Your task to perform on an android device: turn off smart reply in the gmail app Image 0: 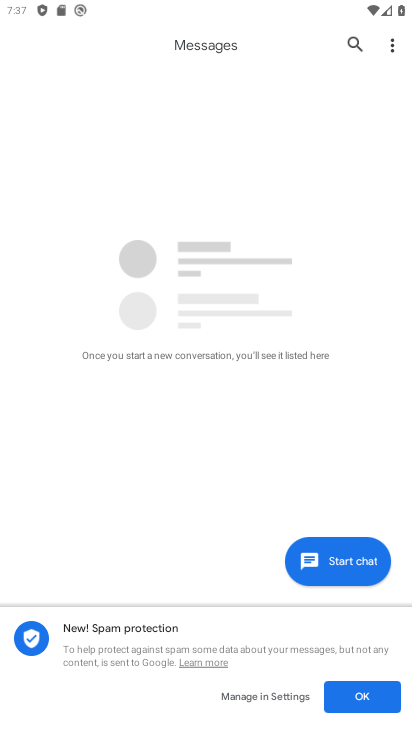
Step 0: drag from (166, 564) to (258, 0)
Your task to perform on an android device: turn off smart reply in the gmail app Image 1: 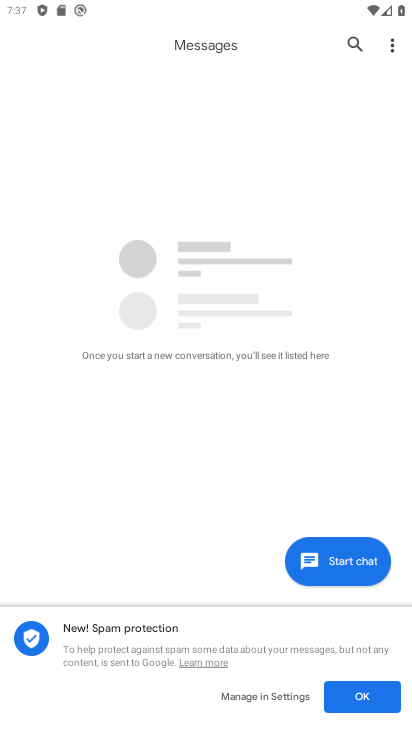
Step 1: drag from (199, 465) to (339, 24)
Your task to perform on an android device: turn off smart reply in the gmail app Image 2: 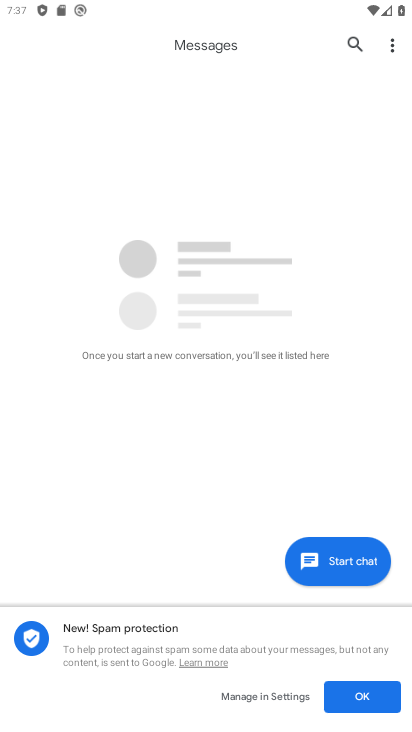
Step 2: press home button
Your task to perform on an android device: turn off smart reply in the gmail app Image 3: 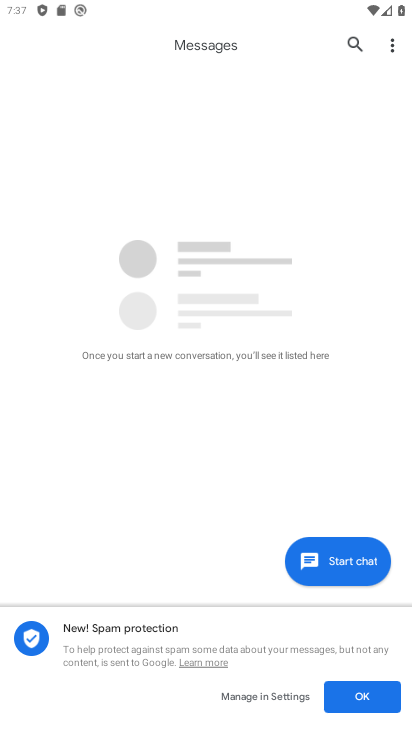
Step 3: drag from (339, 24) to (229, 59)
Your task to perform on an android device: turn off smart reply in the gmail app Image 4: 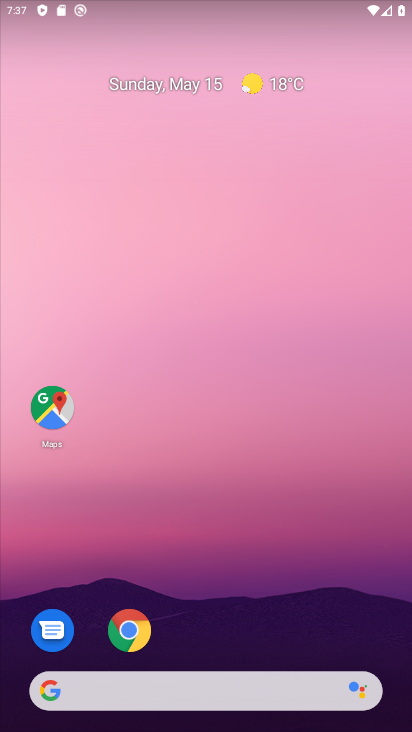
Step 4: drag from (228, 585) to (248, 5)
Your task to perform on an android device: turn off smart reply in the gmail app Image 5: 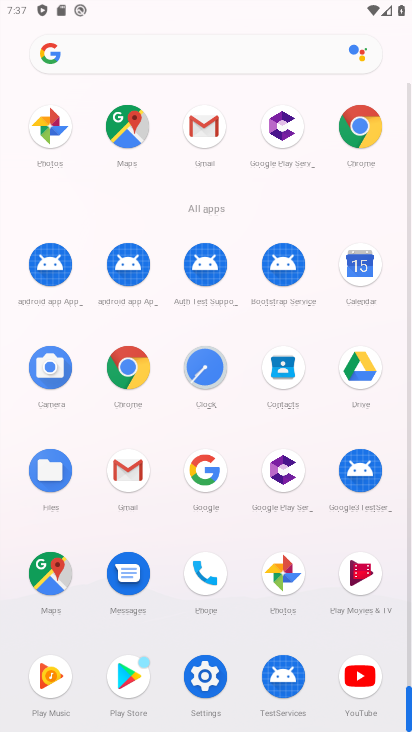
Step 5: click (132, 494)
Your task to perform on an android device: turn off smart reply in the gmail app Image 6: 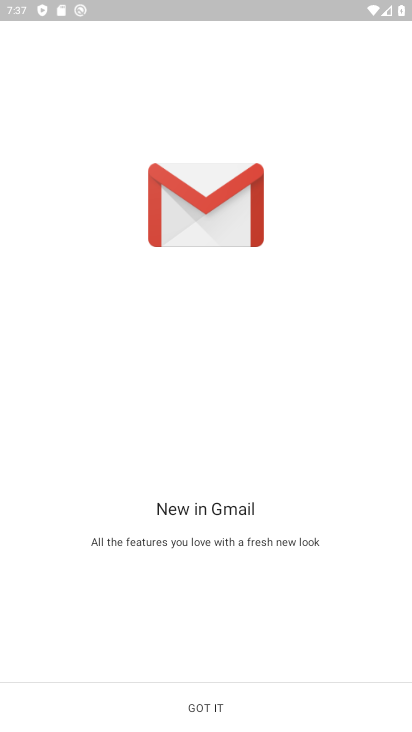
Step 6: click (174, 707)
Your task to perform on an android device: turn off smart reply in the gmail app Image 7: 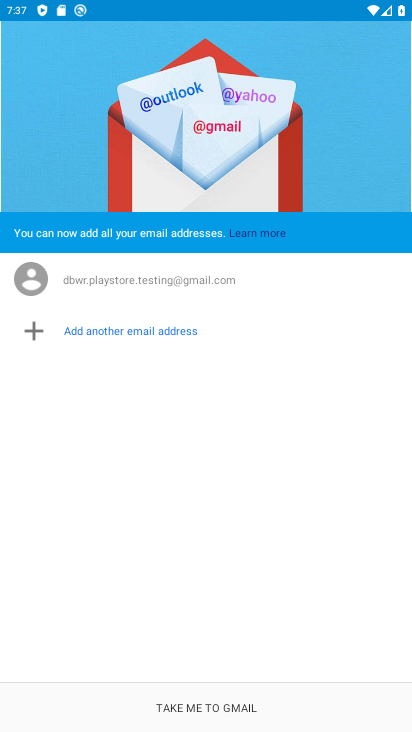
Step 7: click (182, 689)
Your task to perform on an android device: turn off smart reply in the gmail app Image 8: 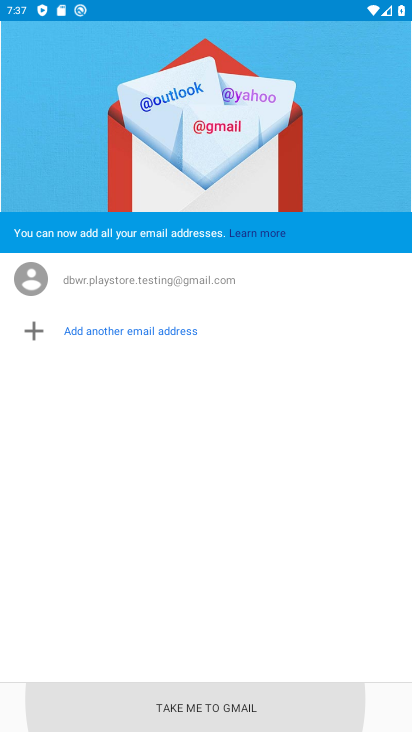
Step 8: click (182, 689)
Your task to perform on an android device: turn off smart reply in the gmail app Image 9: 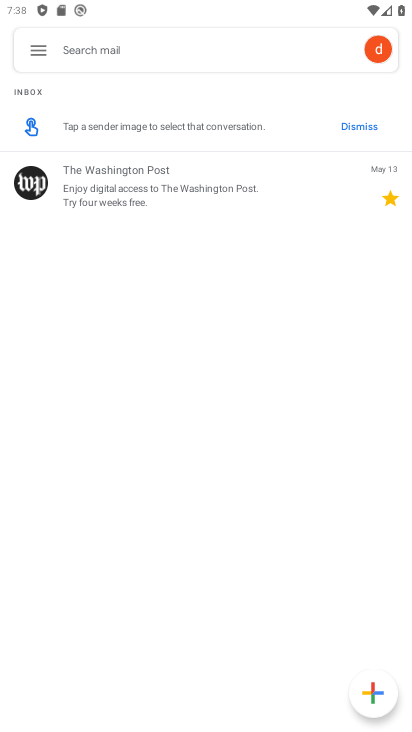
Step 9: drag from (243, 500) to (236, 154)
Your task to perform on an android device: turn off smart reply in the gmail app Image 10: 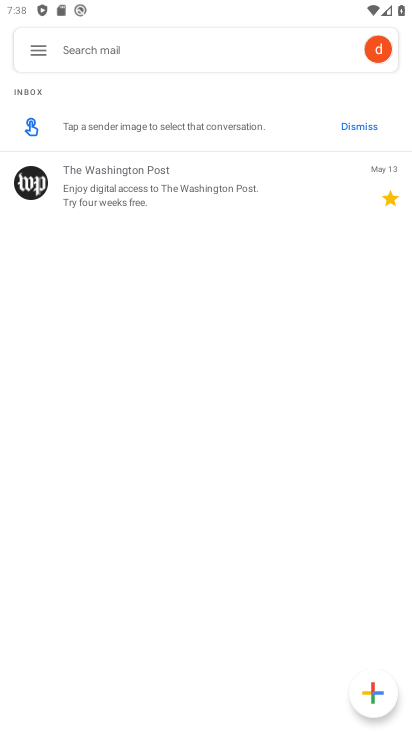
Step 10: click (45, 53)
Your task to perform on an android device: turn off smart reply in the gmail app Image 11: 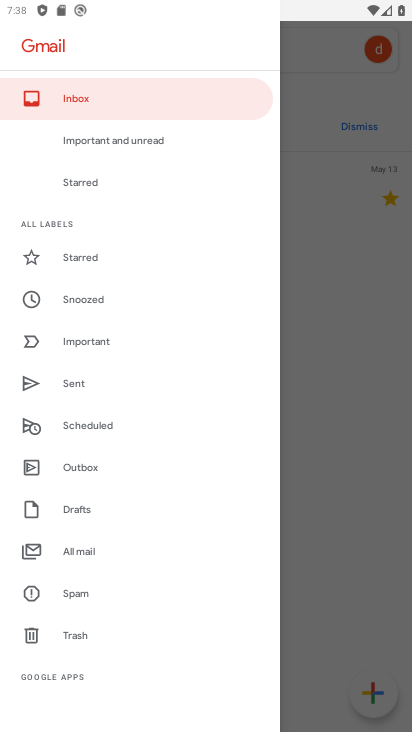
Step 11: drag from (158, 579) to (210, 89)
Your task to perform on an android device: turn off smart reply in the gmail app Image 12: 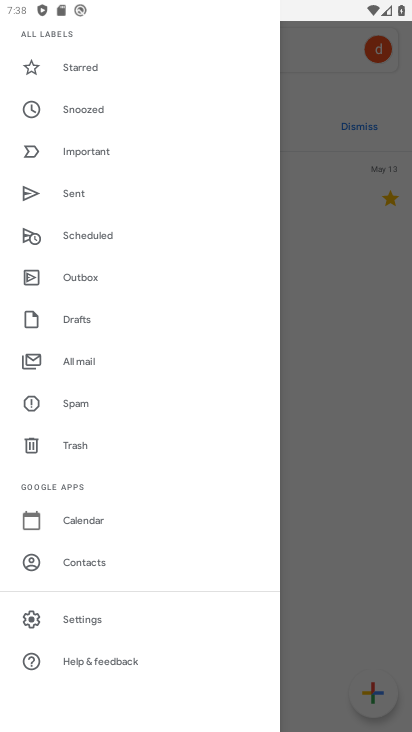
Step 12: click (119, 611)
Your task to perform on an android device: turn off smart reply in the gmail app Image 13: 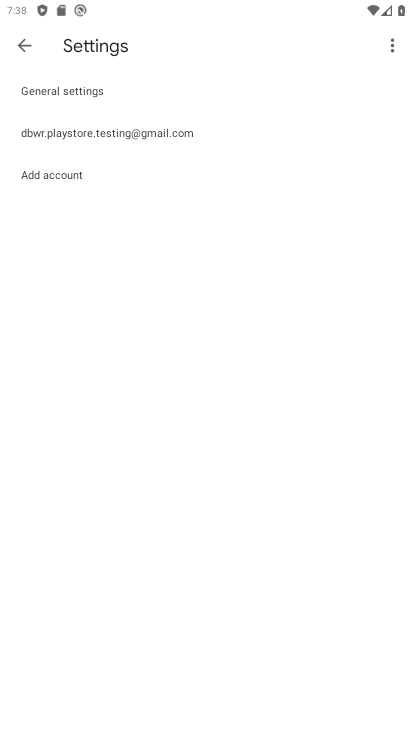
Step 13: click (115, 146)
Your task to perform on an android device: turn off smart reply in the gmail app Image 14: 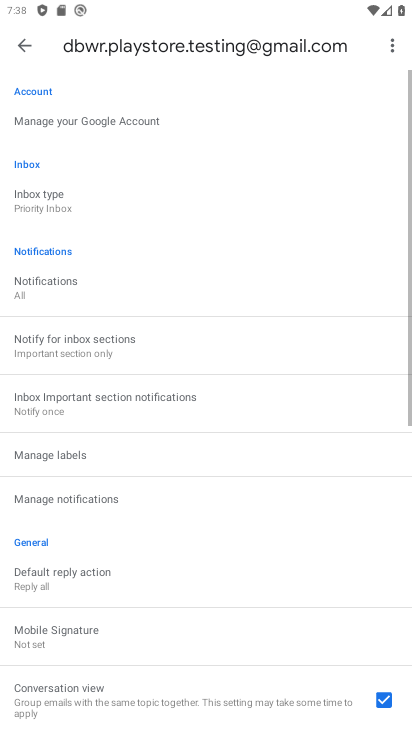
Step 14: drag from (193, 621) to (337, 19)
Your task to perform on an android device: turn off smart reply in the gmail app Image 15: 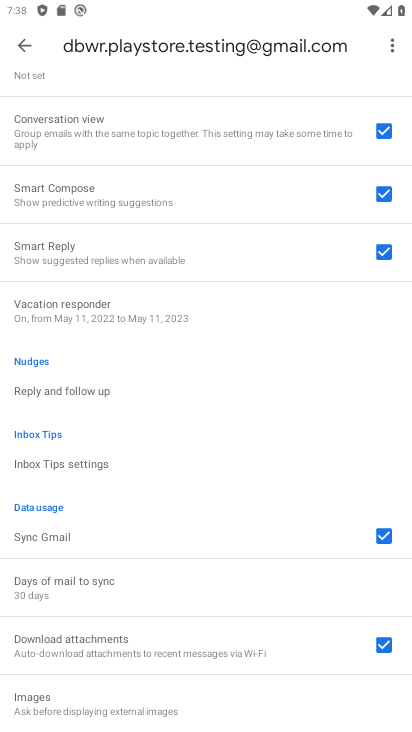
Step 15: click (346, 247)
Your task to perform on an android device: turn off smart reply in the gmail app Image 16: 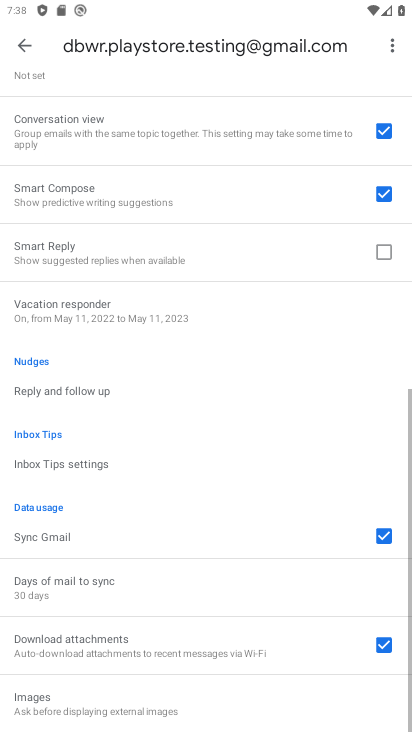
Step 16: task complete